Your task to perform on an android device: Open my contact list Image 0: 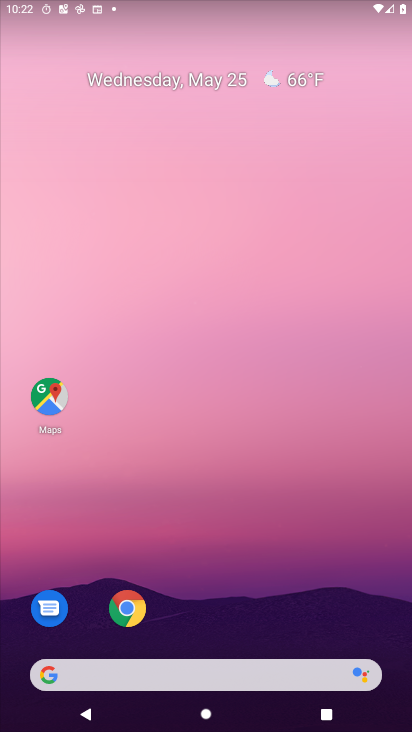
Step 0: drag from (222, 720) to (185, 103)
Your task to perform on an android device: Open my contact list Image 1: 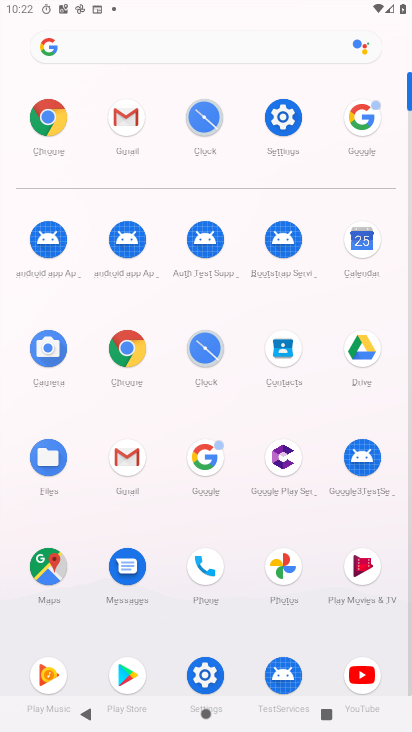
Step 1: click (287, 349)
Your task to perform on an android device: Open my contact list Image 2: 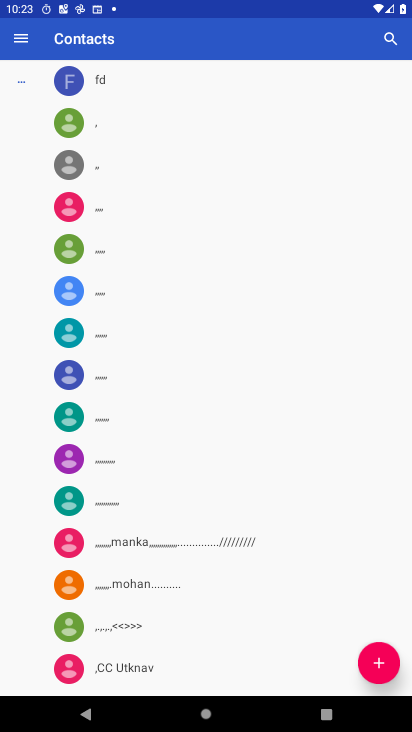
Step 2: task complete